Your task to perform on an android device: turn off airplane mode Image 0: 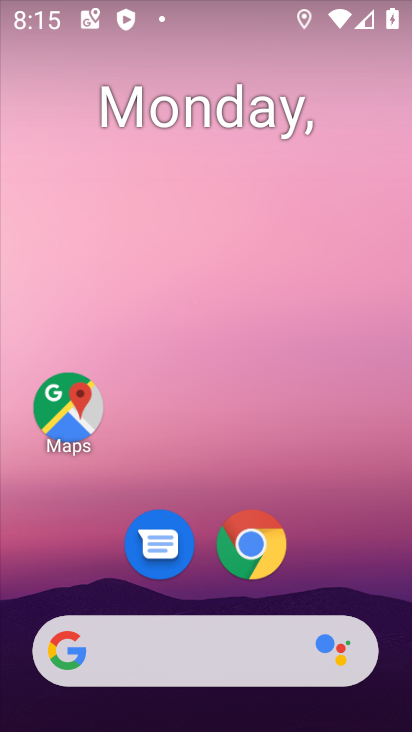
Step 0: drag from (236, 606) to (143, 4)
Your task to perform on an android device: turn off airplane mode Image 1: 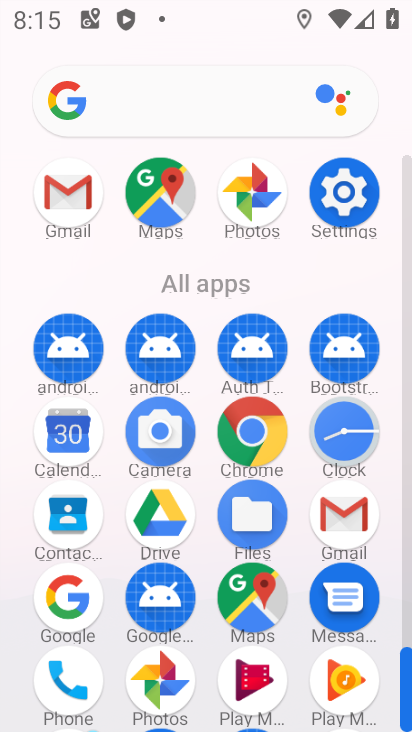
Step 1: click (331, 188)
Your task to perform on an android device: turn off airplane mode Image 2: 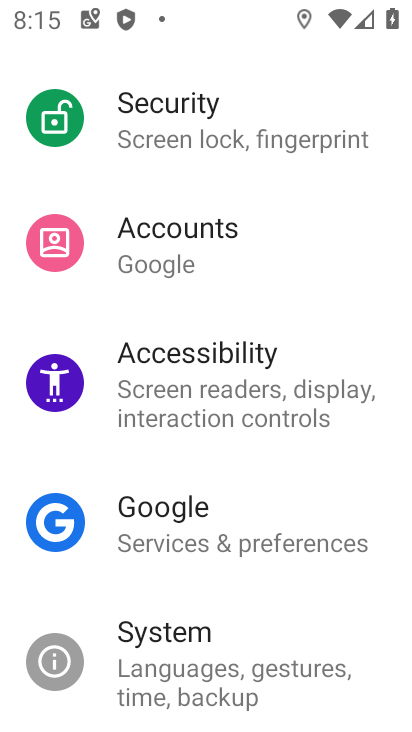
Step 2: drag from (295, 159) to (256, 675)
Your task to perform on an android device: turn off airplane mode Image 3: 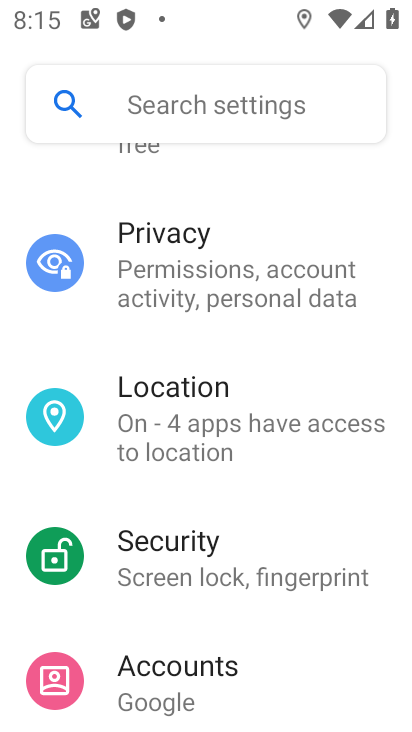
Step 3: drag from (241, 198) to (237, 704)
Your task to perform on an android device: turn off airplane mode Image 4: 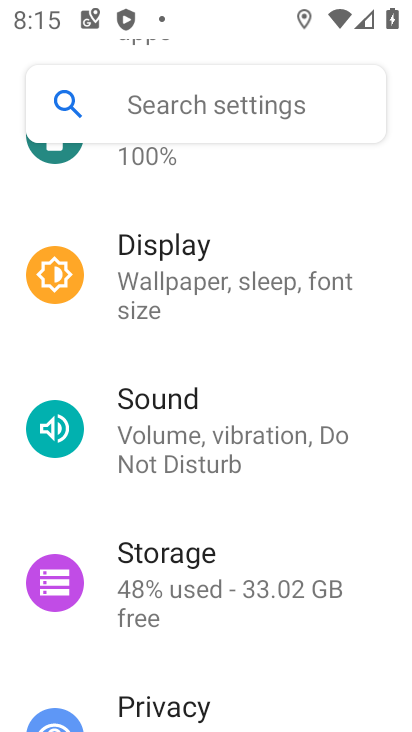
Step 4: drag from (192, 210) to (222, 729)
Your task to perform on an android device: turn off airplane mode Image 5: 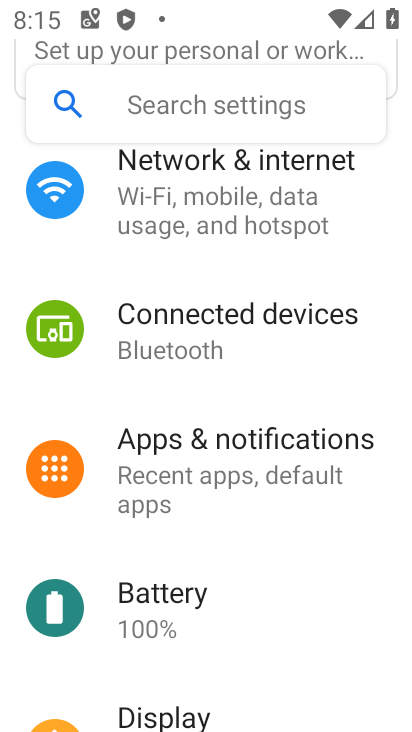
Step 5: click (198, 225)
Your task to perform on an android device: turn off airplane mode Image 6: 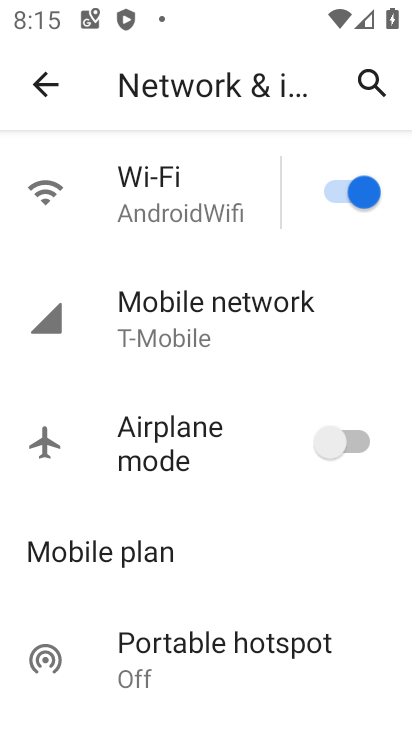
Step 6: task complete